Your task to perform on an android device: Search for a sofa on article.com Image 0: 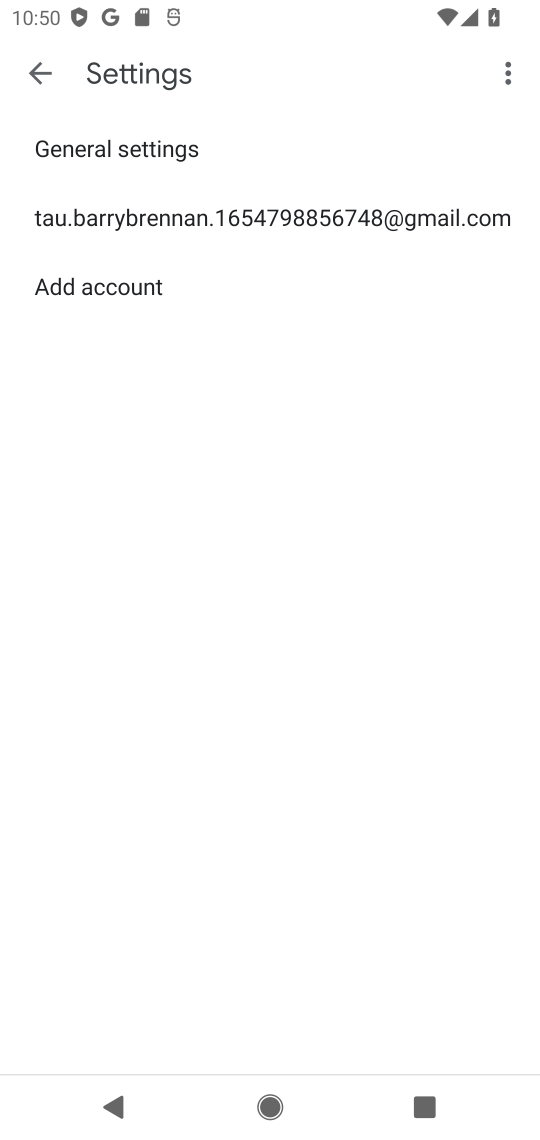
Step 0: click (260, 679)
Your task to perform on an android device: Search for a sofa on article.com Image 1: 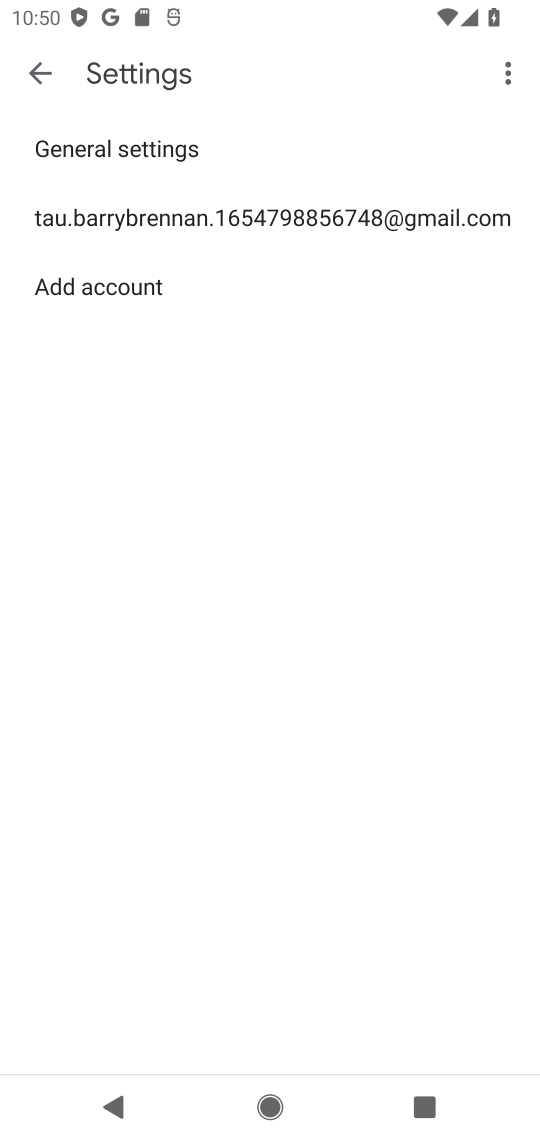
Step 1: press home button
Your task to perform on an android device: Search for a sofa on article.com Image 2: 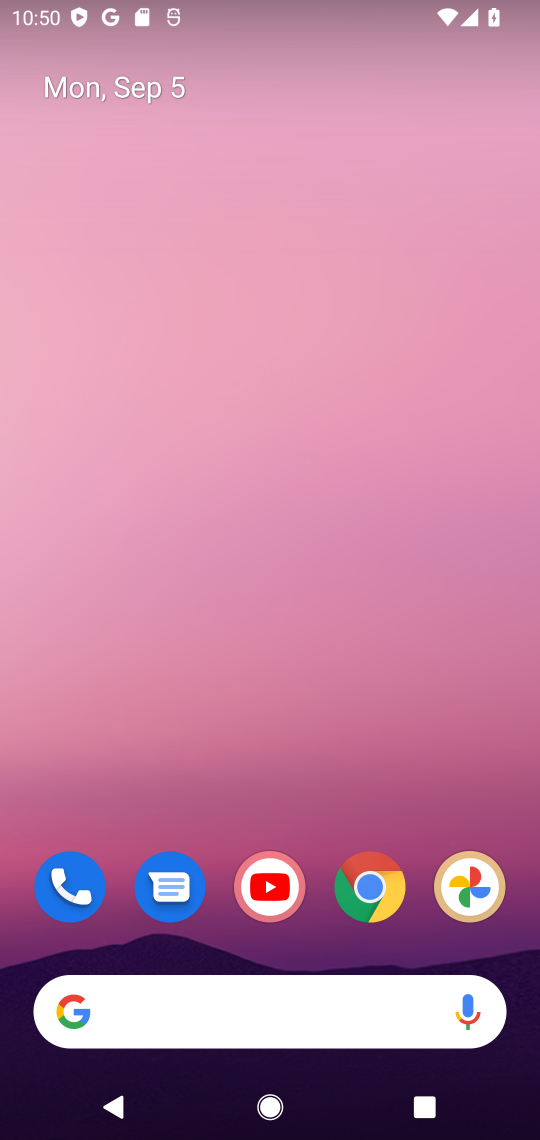
Step 2: click (370, 883)
Your task to perform on an android device: Search for a sofa on article.com Image 3: 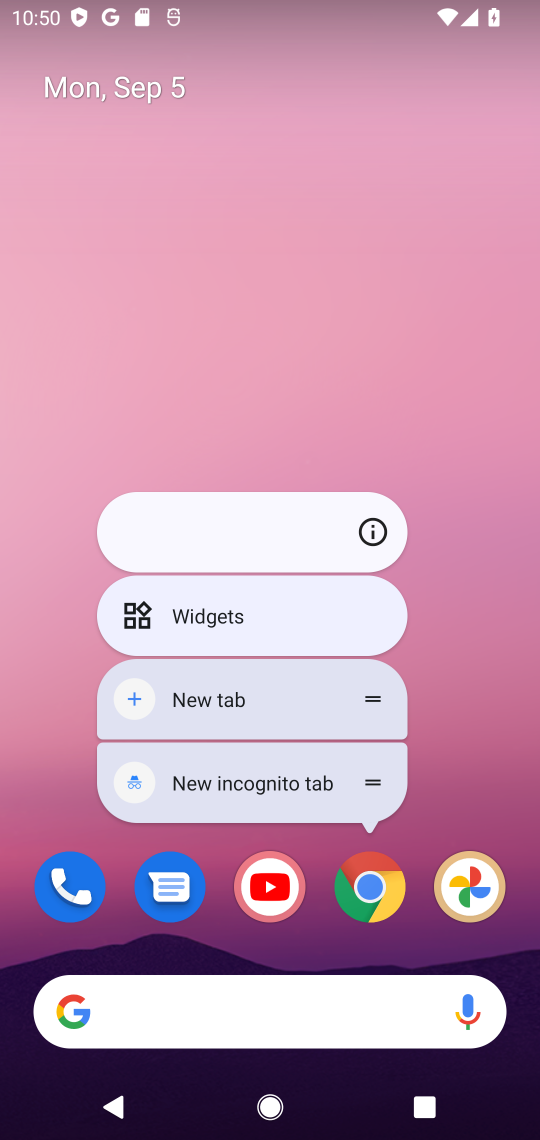
Step 3: click (386, 885)
Your task to perform on an android device: Search for a sofa on article.com Image 4: 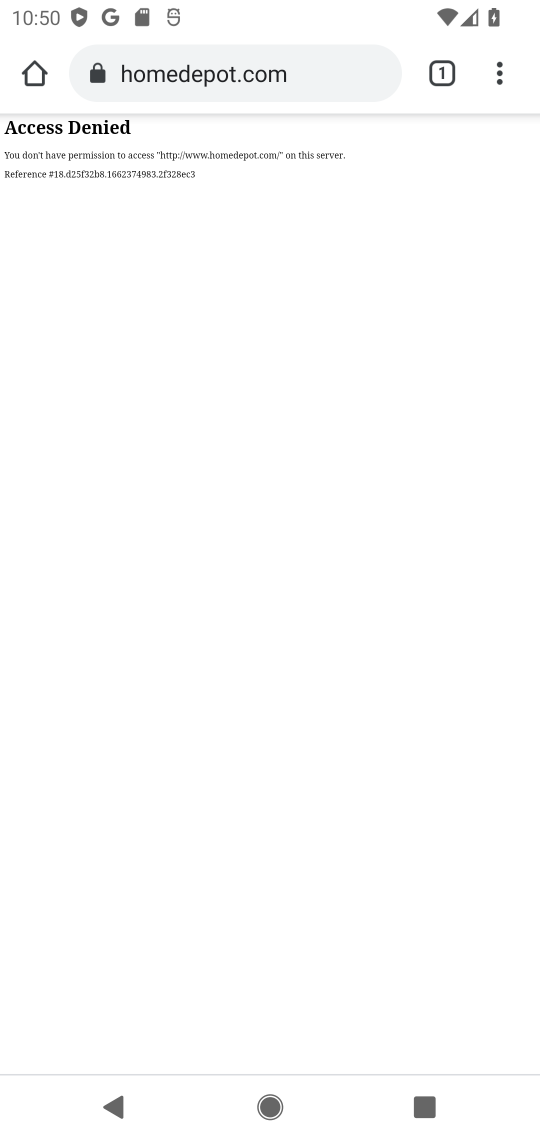
Step 4: click (235, 72)
Your task to perform on an android device: Search for a sofa on article.com Image 5: 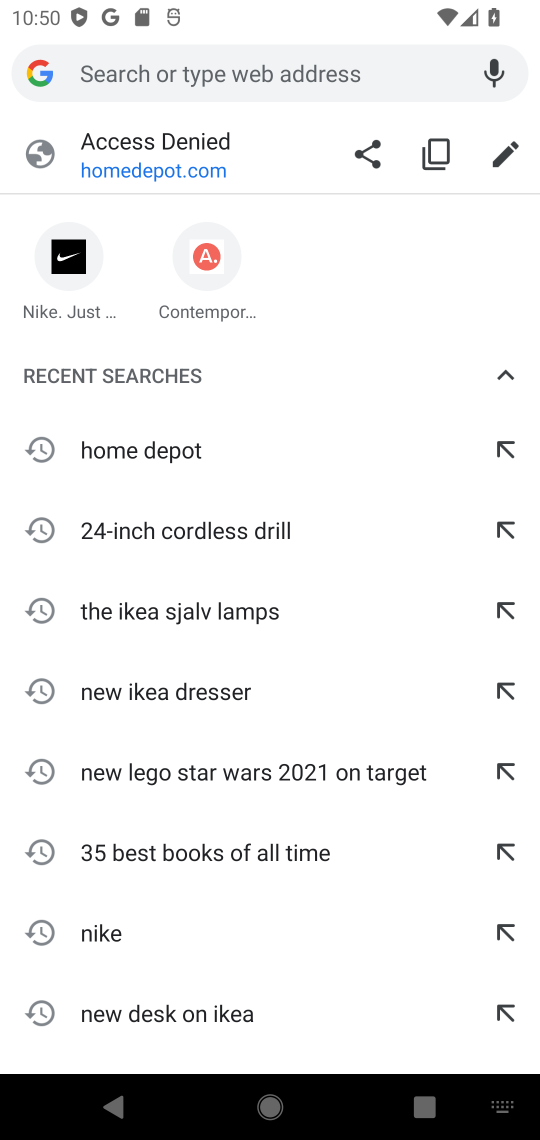
Step 5: type "article.com"
Your task to perform on an android device: Search for a sofa on article.com Image 6: 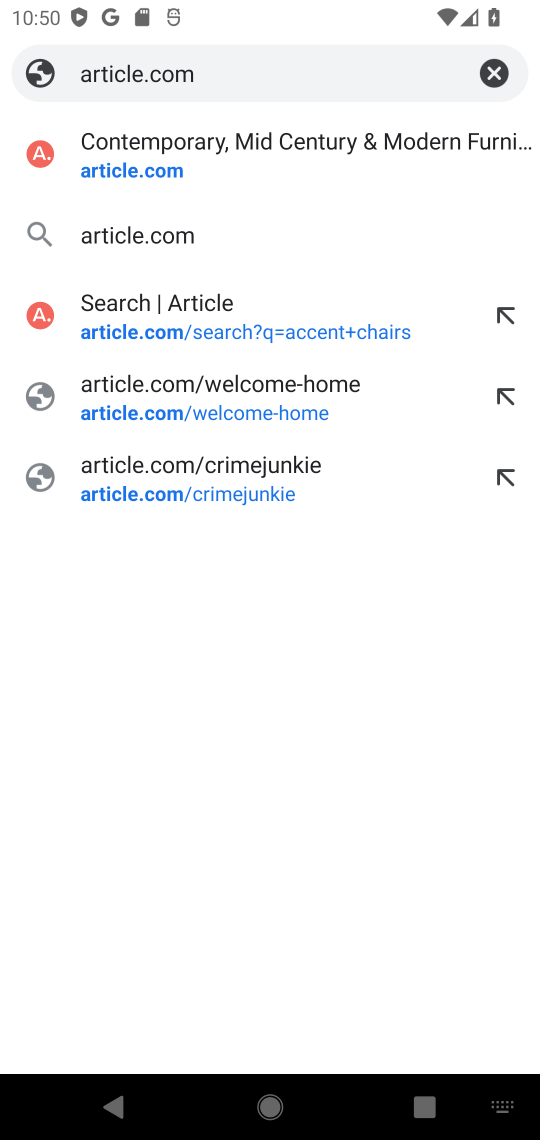
Step 6: press enter
Your task to perform on an android device: Search for a sofa on article.com Image 7: 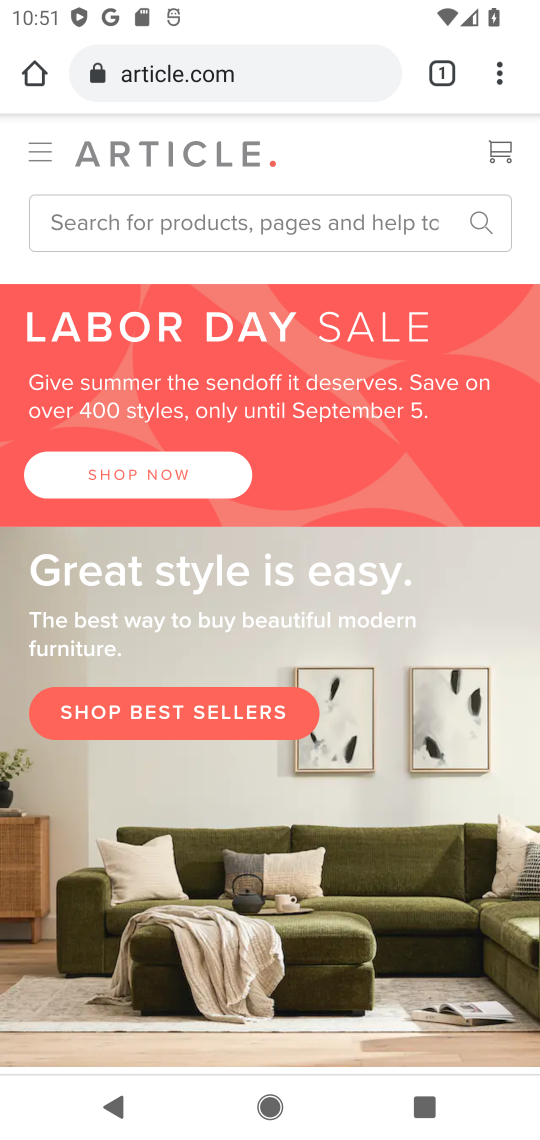
Step 7: click (130, 229)
Your task to perform on an android device: Search for a sofa on article.com Image 8: 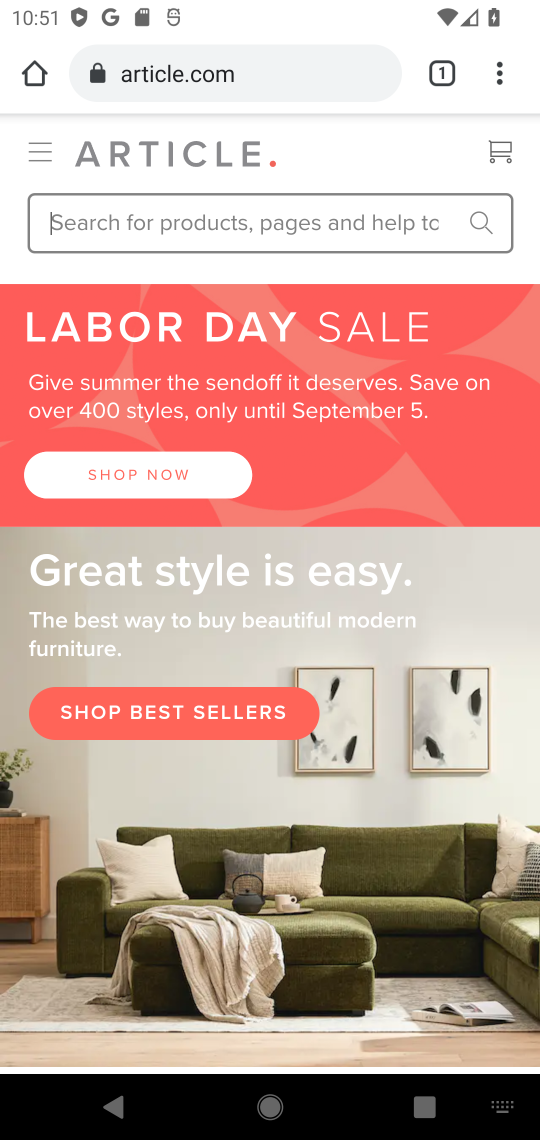
Step 8: click (163, 211)
Your task to perform on an android device: Search for a sofa on article.com Image 9: 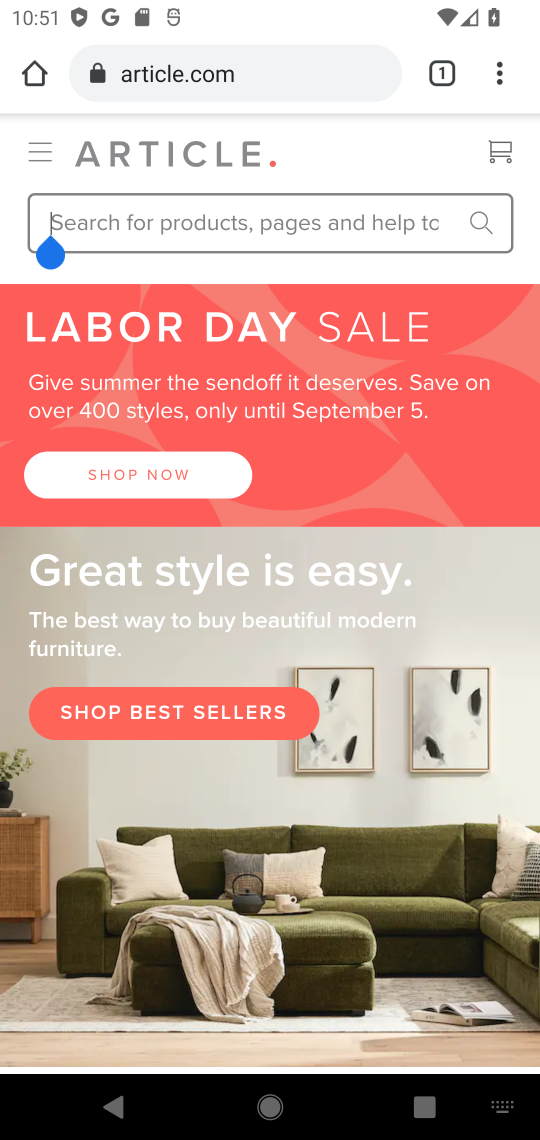
Step 9: type "sofa"
Your task to perform on an android device: Search for a sofa on article.com Image 10: 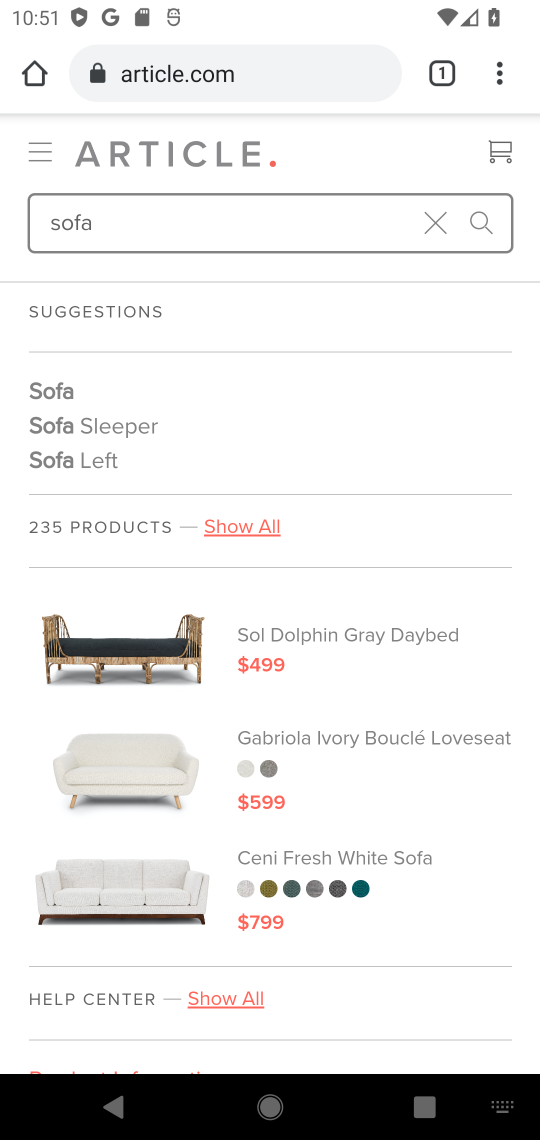
Step 10: type ""
Your task to perform on an android device: Search for a sofa on article.com Image 11: 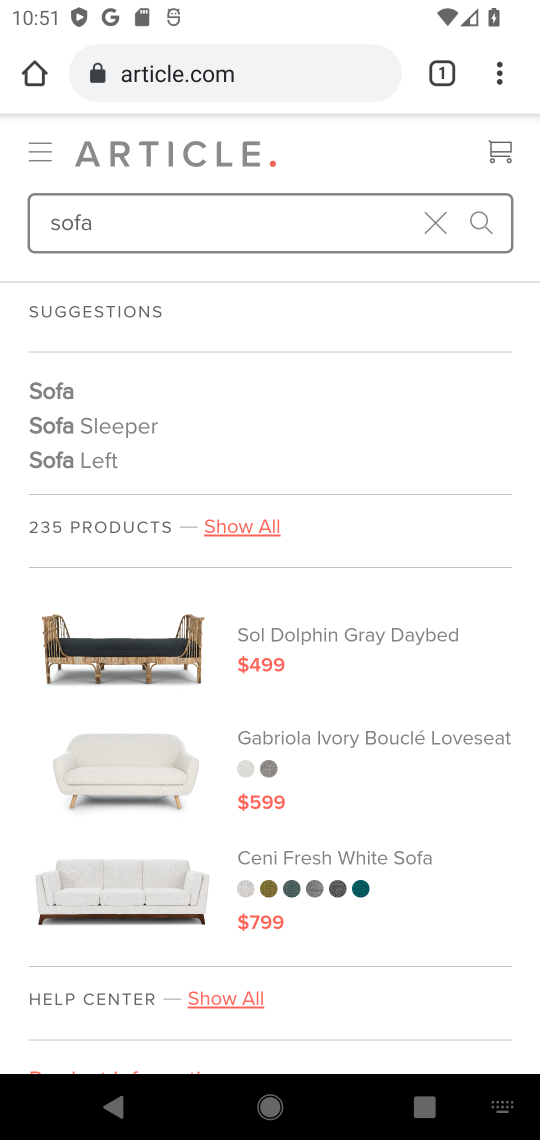
Step 11: task complete